Your task to perform on an android device: change the upload size in google photos Image 0: 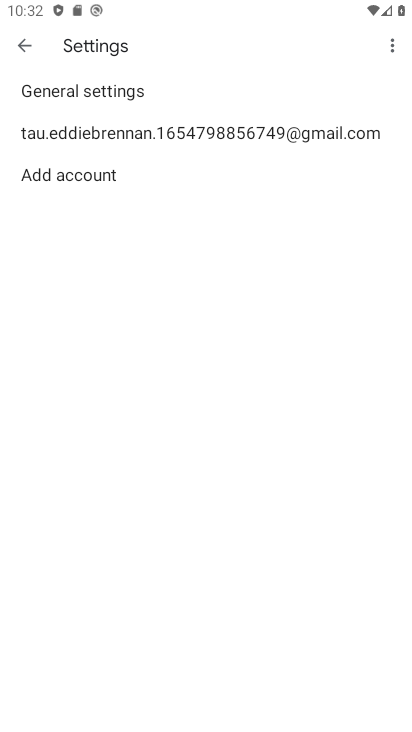
Step 0: press home button
Your task to perform on an android device: change the upload size in google photos Image 1: 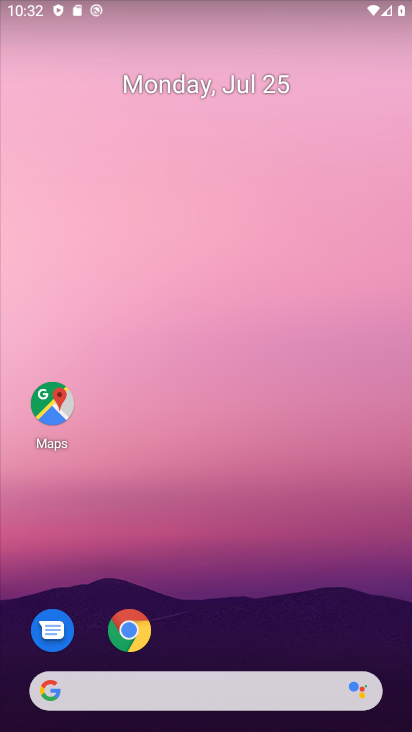
Step 1: drag from (237, 643) to (230, 50)
Your task to perform on an android device: change the upload size in google photos Image 2: 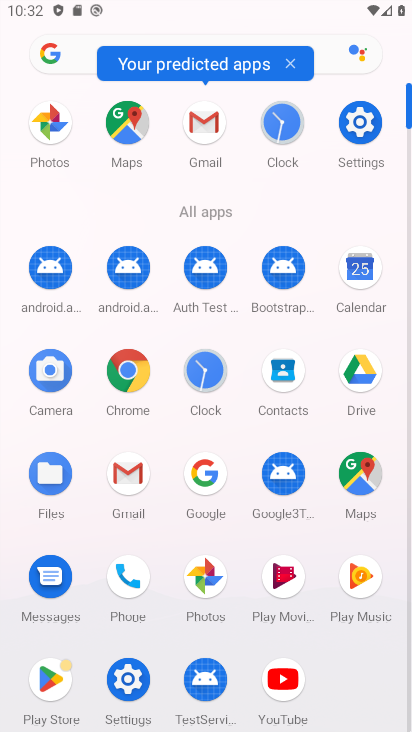
Step 2: click (49, 127)
Your task to perform on an android device: change the upload size in google photos Image 3: 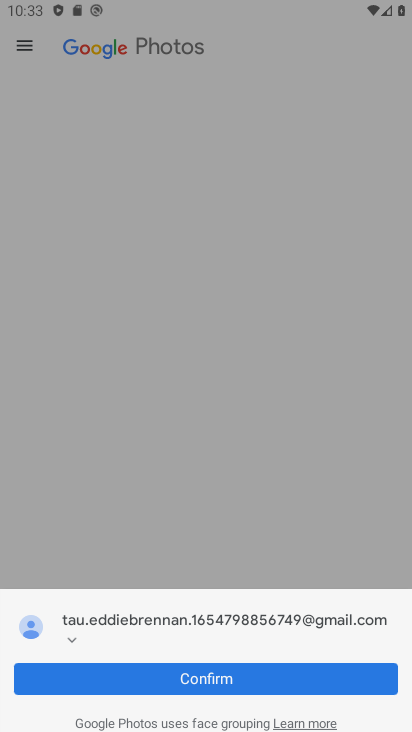
Step 3: click (21, 52)
Your task to perform on an android device: change the upload size in google photos Image 4: 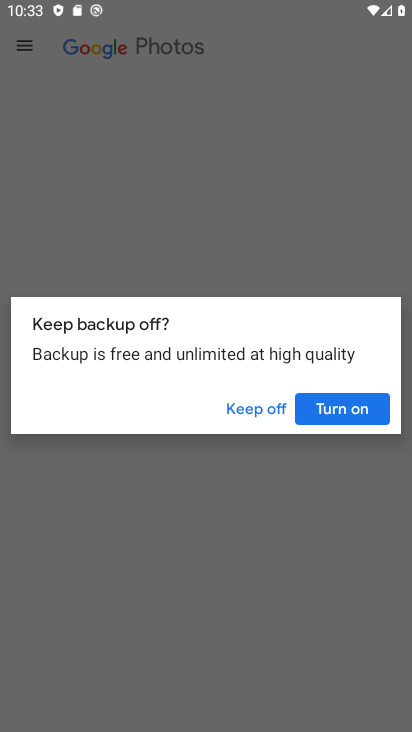
Step 4: click (352, 410)
Your task to perform on an android device: change the upload size in google photos Image 5: 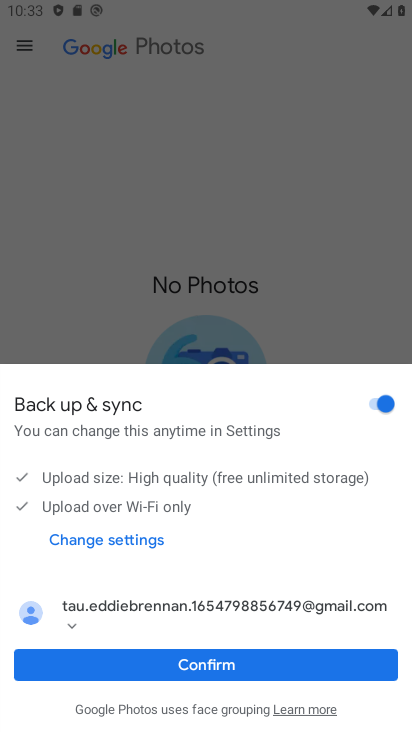
Step 5: click (304, 658)
Your task to perform on an android device: change the upload size in google photos Image 6: 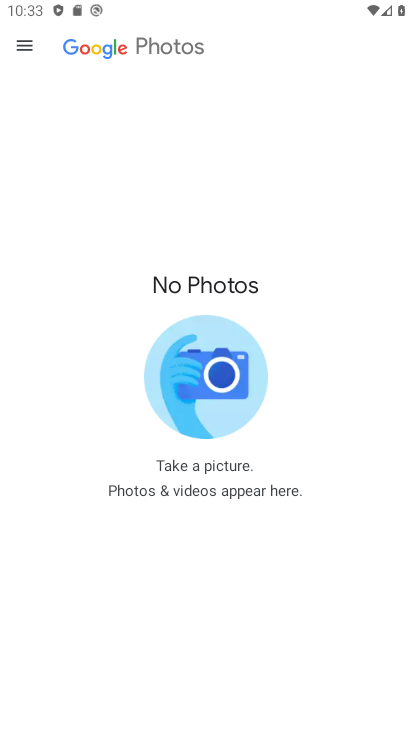
Step 6: click (22, 51)
Your task to perform on an android device: change the upload size in google photos Image 7: 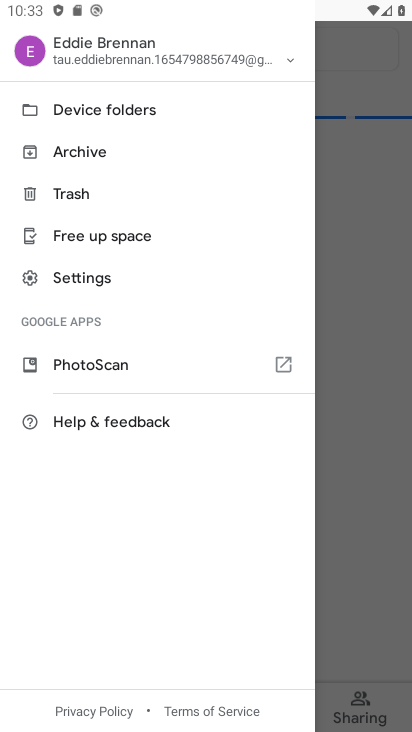
Step 7: click (90, 281)
Your task to perform on an android device: change the upload size in google photos Image 8: 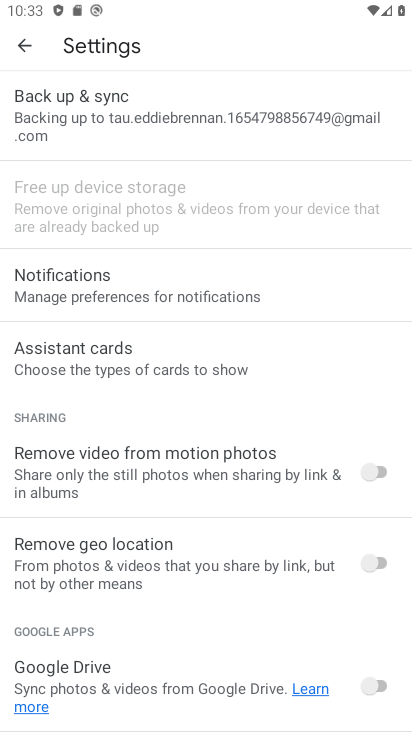
Step 8: click (132, 127)
Your task to perform on an android device: change the upload size in google photos Image 9: 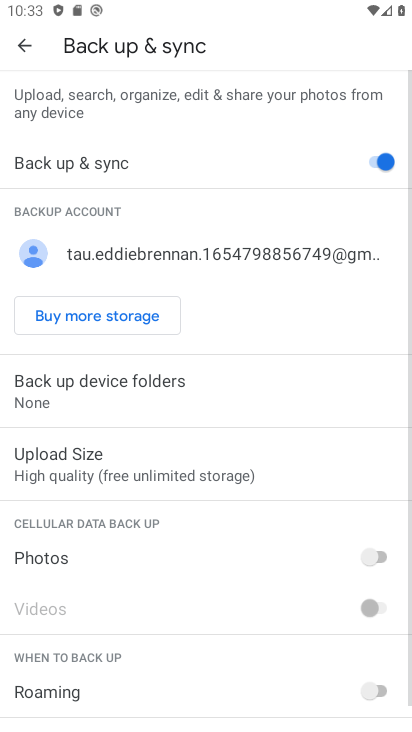
Step 9: click (86, 473)
Your task to perform on an android device: change the upload size in google photos Image 10: 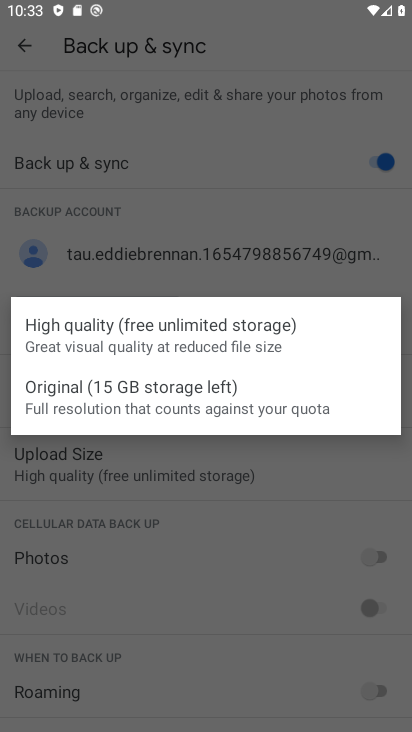
Step 10: click (131, 413)
Your task to perform on an android device: change the upload size in google photos Image 11: 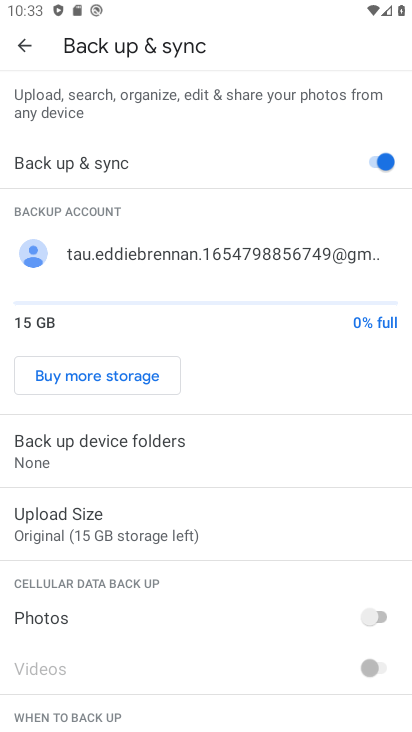
Step 11: task complete